Your task to perform on an android device: Search for the ikea sjalv lamp Image 0: 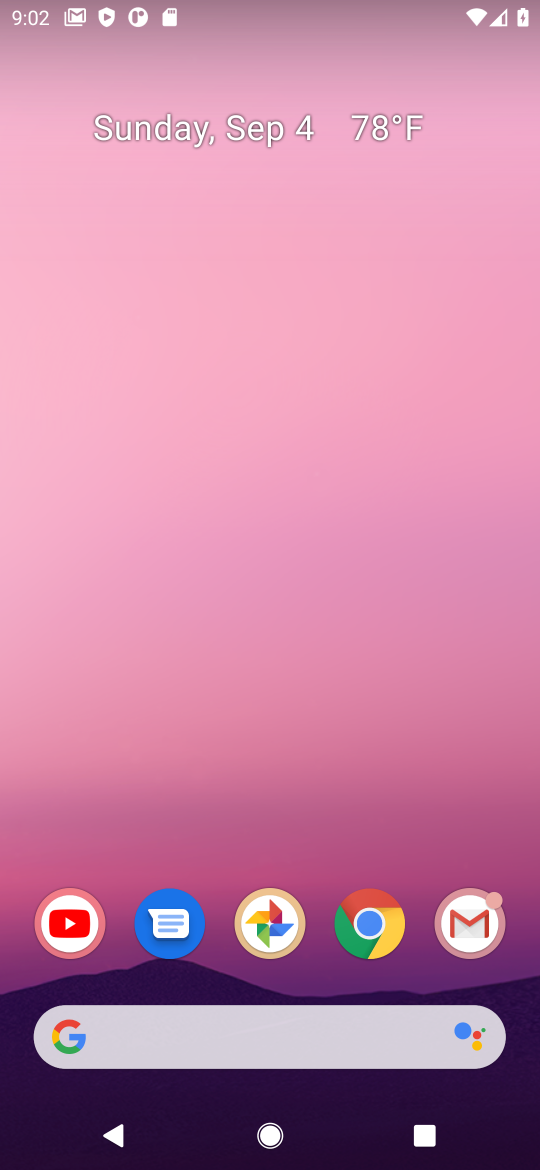
Step 0: click (148, 1023)
Your task to perform on an android device: Search for the ikea sjalv lamp Image 1: 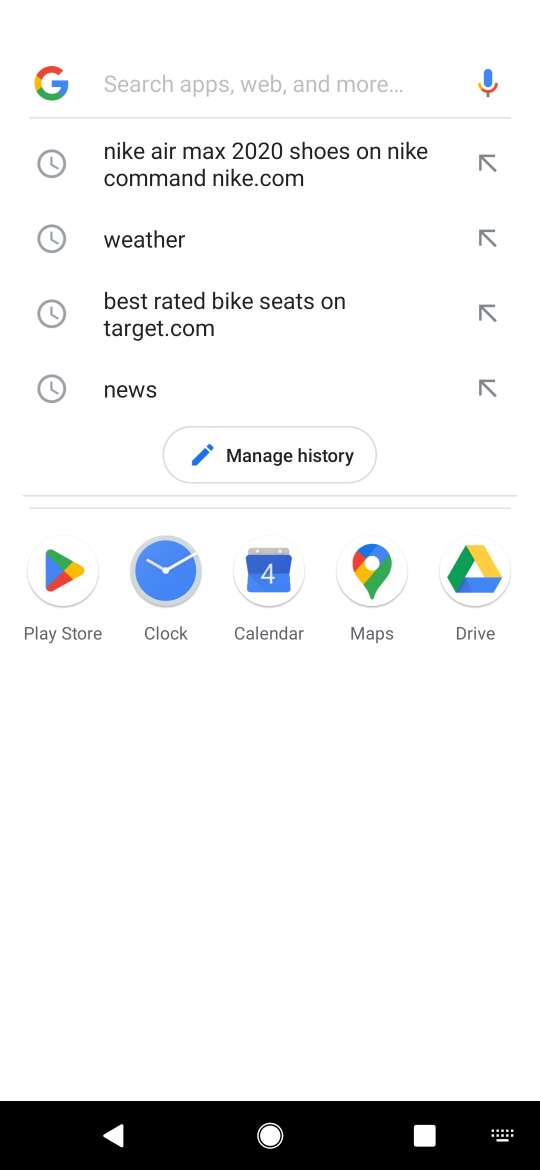
Step 1: type "the ikea sjalv lamp"
Your task to perform on an android device: Search for the ikea sjalv lamp Image 2: 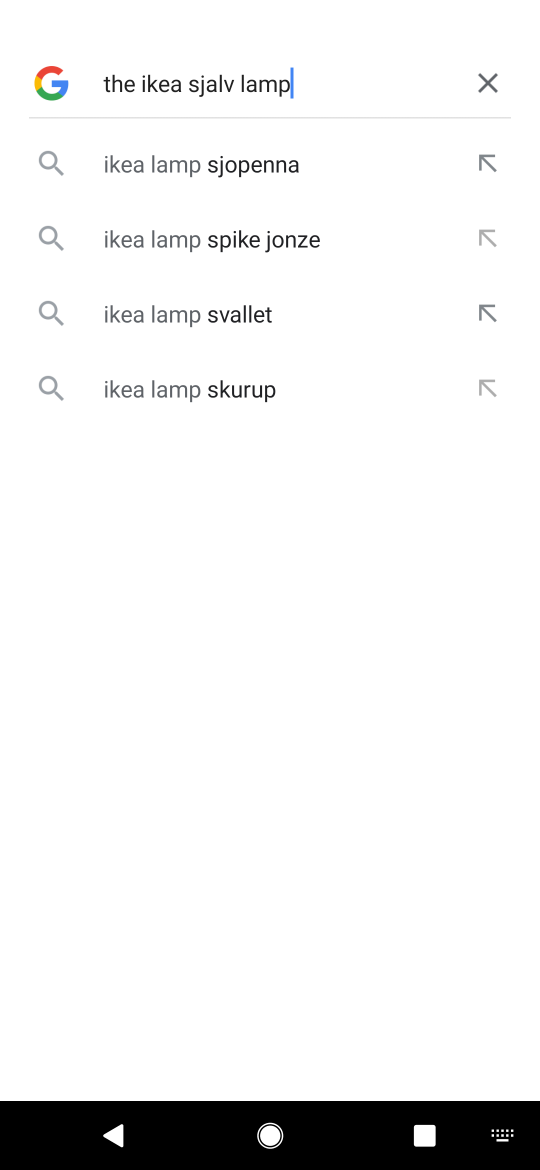
Step 2: click (280, 176)
Your task to perform on an android device: Search for the ikea sjalv lamp Image 3: 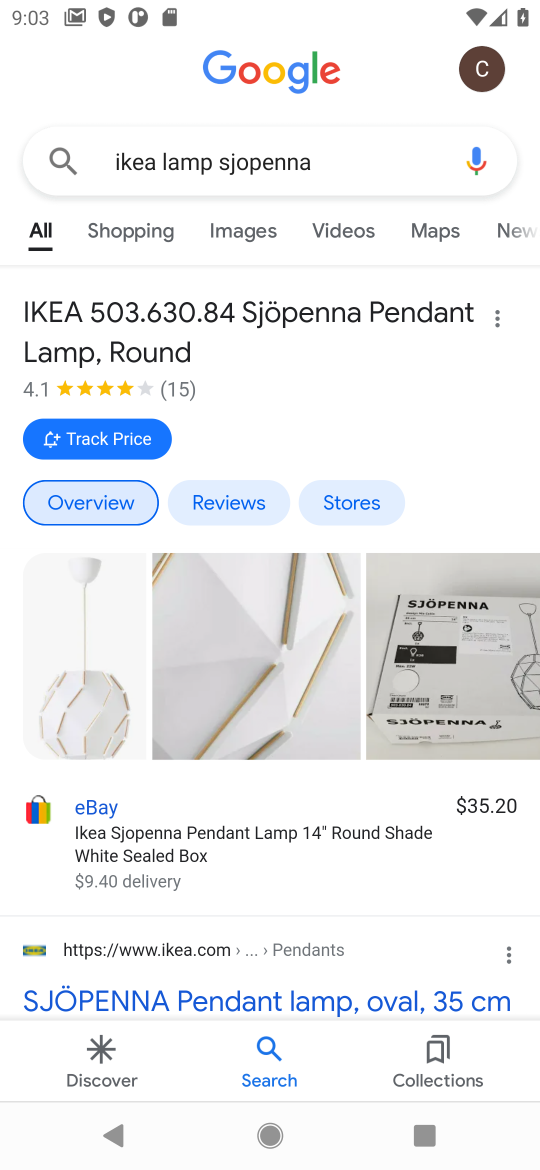
Step 3: task complete